Your task to perform on an android device: move an email to a new category in the gmail app Image 0: 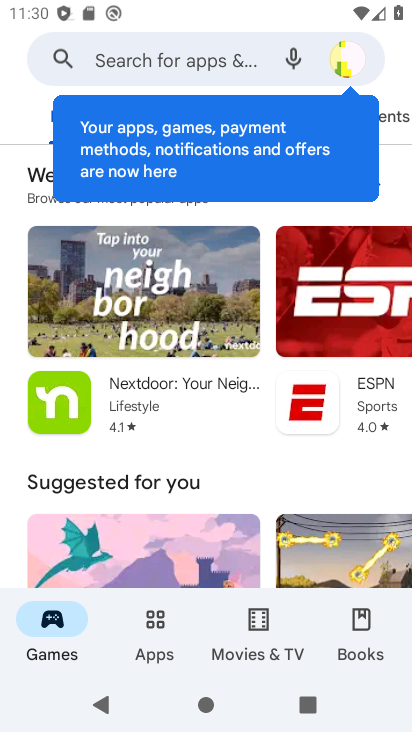
Step 0: press home button
Your task to perform on an android device: move an email to a new category in the gmail app Image 1: 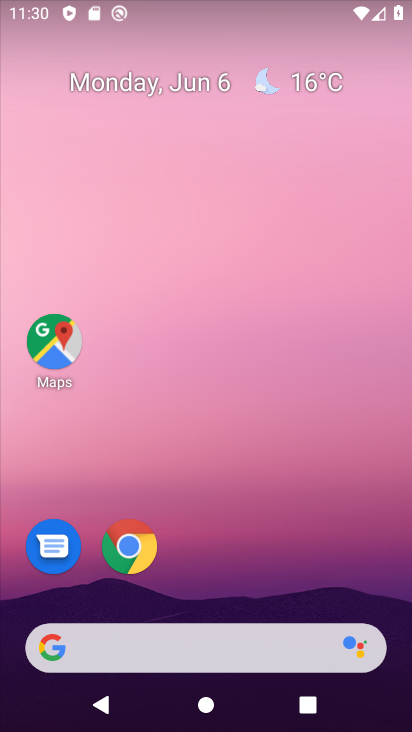
Step 1: drag from (222, 536) to (241, 222)
Your task to perform on an android device: move an email to a new category in the gmail app Image 2: 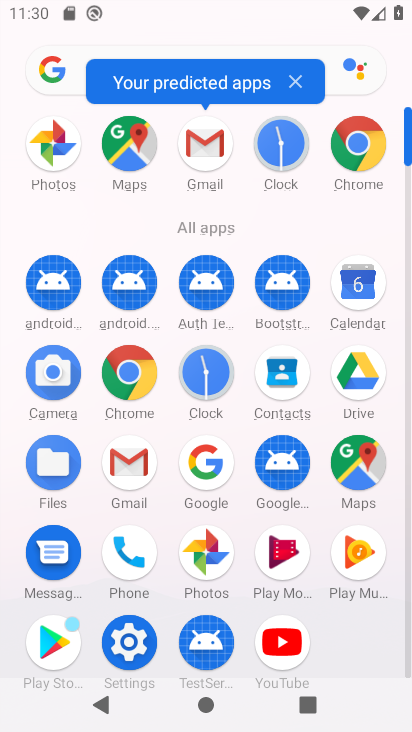
Step 2: click (118, 474)
Your task to perform on an android device: move an email to a new category in the gmail app Image 3: 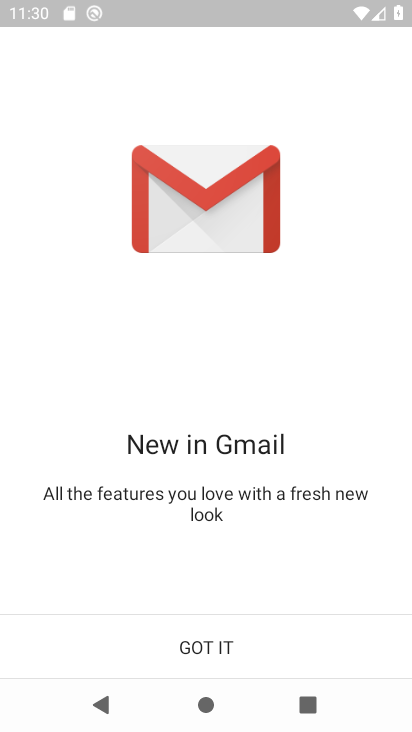
Step 3: click (202, 641)
Your task to perform on an android device: move an email to a new category in the gmail app Image 4: 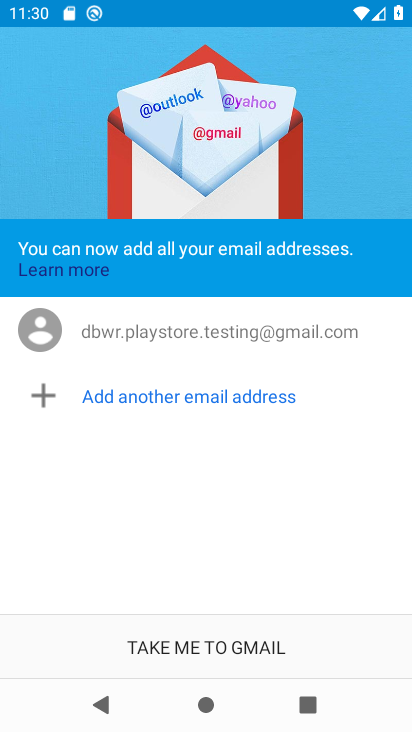
Step 4: click (201, 639)
Your task to perform on an android device: move an email to a new category in the gmail app Image 5: 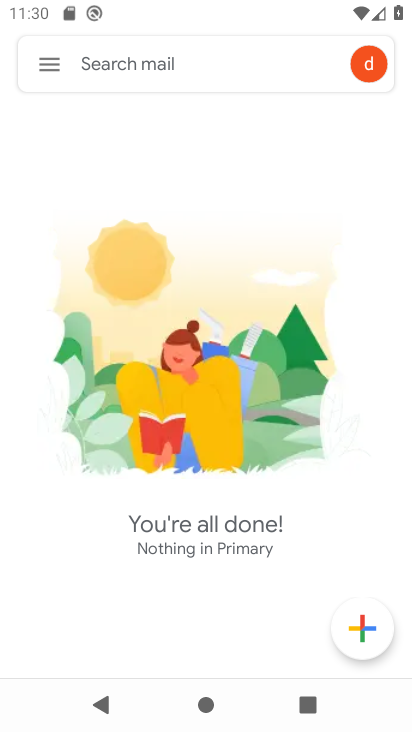
Step 5: click (51, 46)
Your task to perform on an android device: move an email to a new category in the gmail app Image 6: 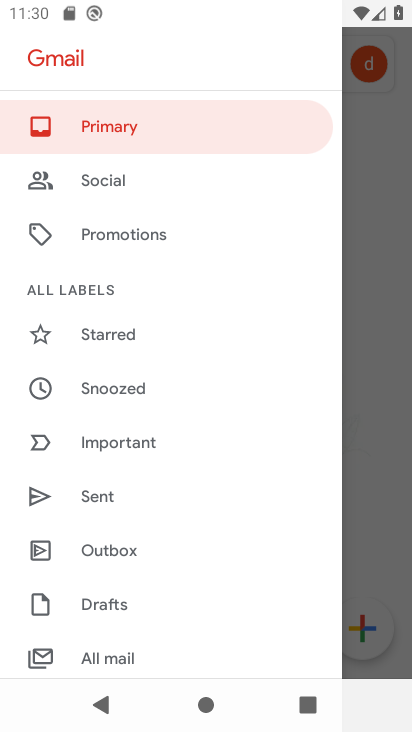
Step 6: drag from (120, 580) to (150, 426)
Your task to perform on an android device: move an email to a new category in the gmail app Image 7: 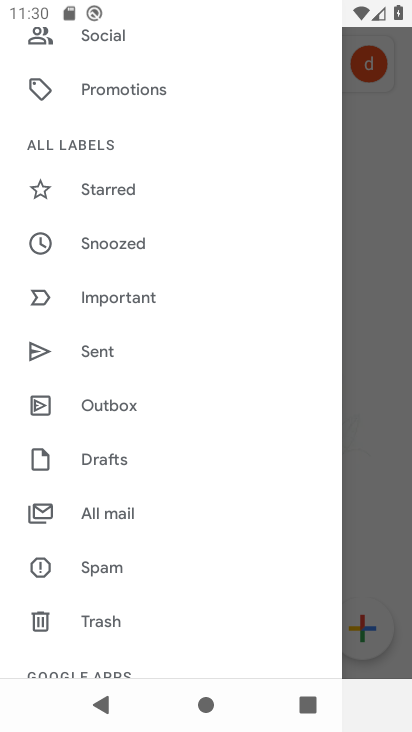
Step 7: click (121, 518)
Your task to perform on an android device: move an email to a new category in the gmail app Image 8: 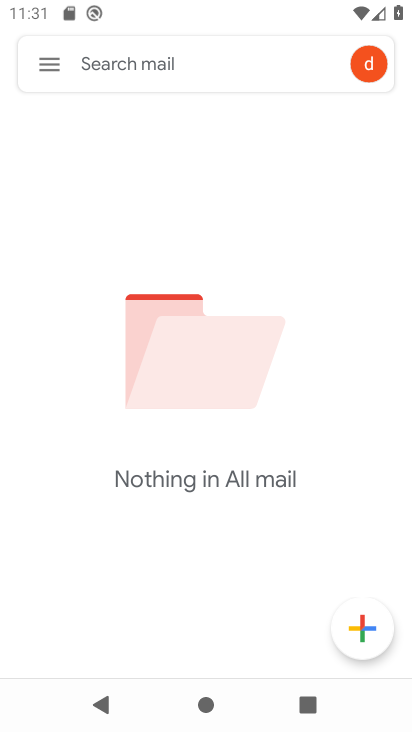
Step 8: task complete